Your task to perform on an android device: What's on my calendar tomorrow? Image 0: 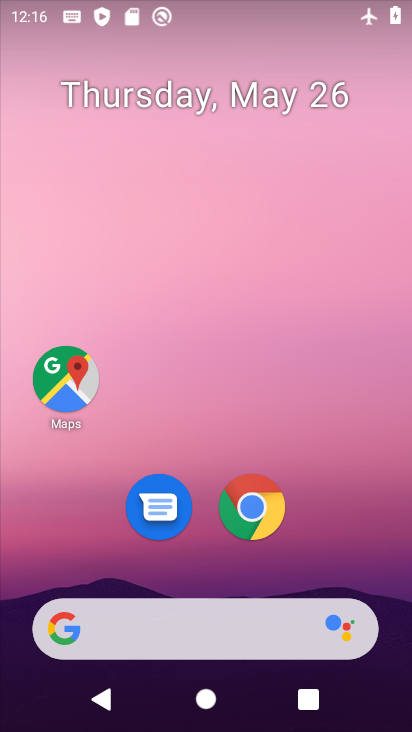
Step 0: drag from (215, 570) to (214, 178)
Your task to perform on an android device: What's on my calendar tomorrow? Image 1: 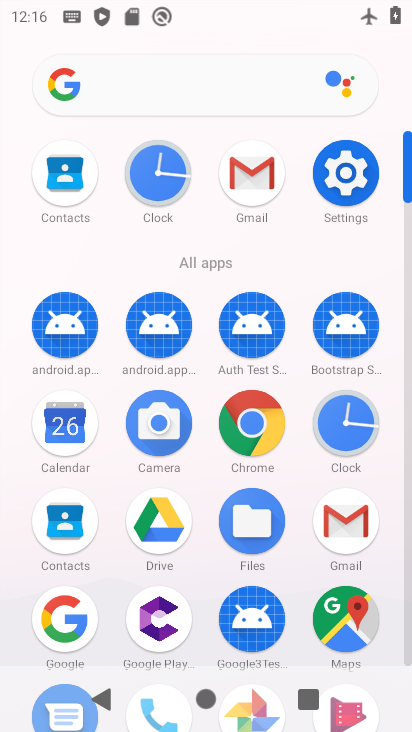
Step 1: click (69, 431)
Your task to perform on an android device: What's on my calendar tomorrow? Image 2: 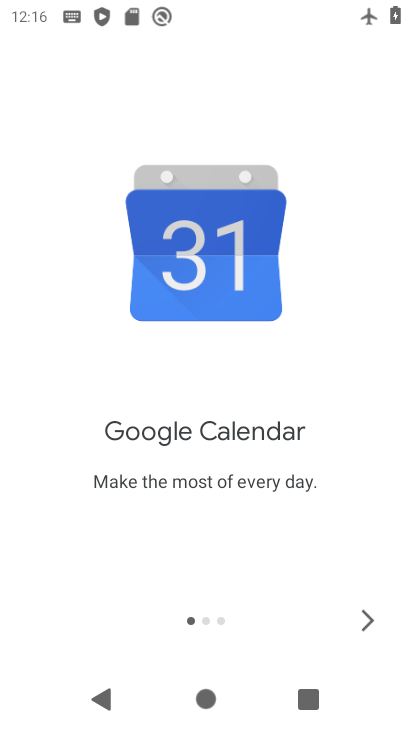
Step 2: click (374, 625)
Your task to perform on an android device: What's on my calendar tomorrow? Image 3: 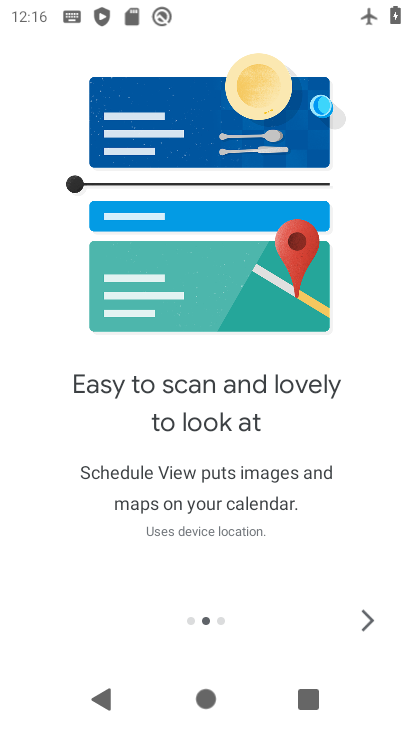
Step 3: click (375, 625)
Your task to perform on an android device: What's on my calendar tomorrow? Image 4: 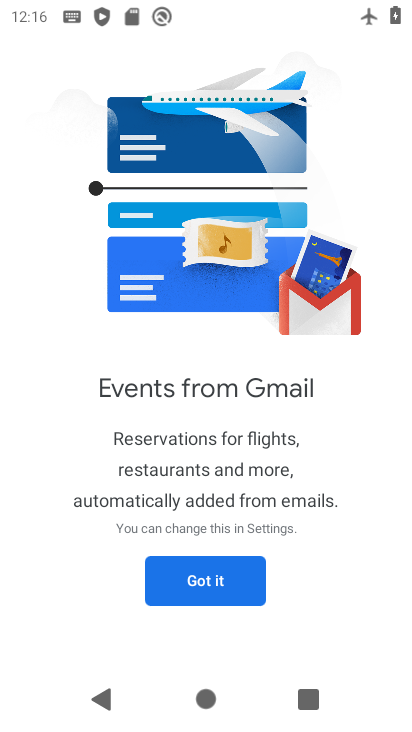
Step 4: click (221, 571)
Your task to perform on an android device: What's on my calendar tomorrow? Image 5: 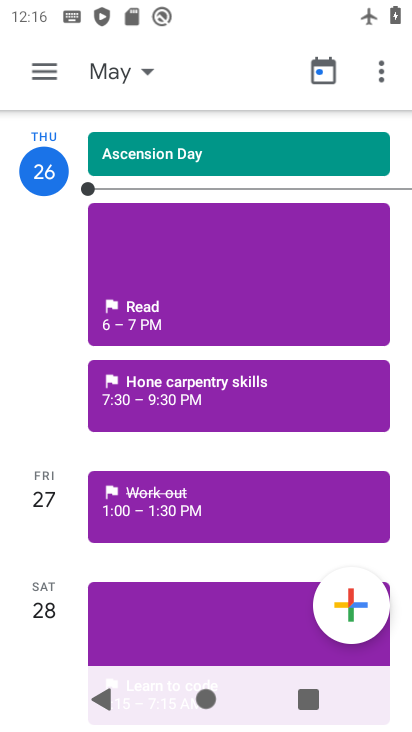
Step 5: click (128, 57)
Your task to perform on an android device: What's on my calendar tomorrow? Image 6: 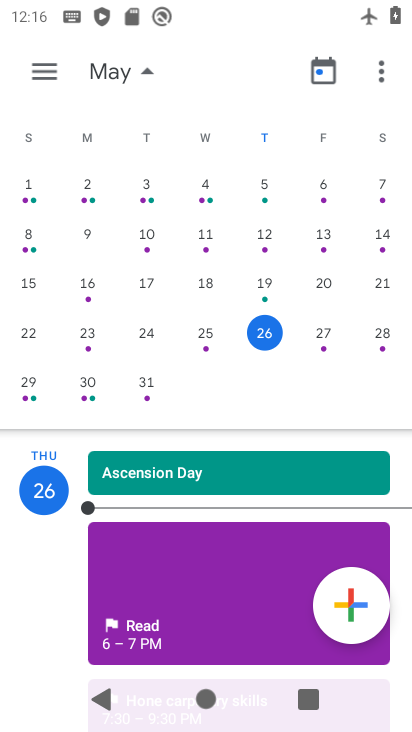
Step 6: click (330, 333)
Your task to perform on an android device: What's on my calendar tomorrow? Image 7: 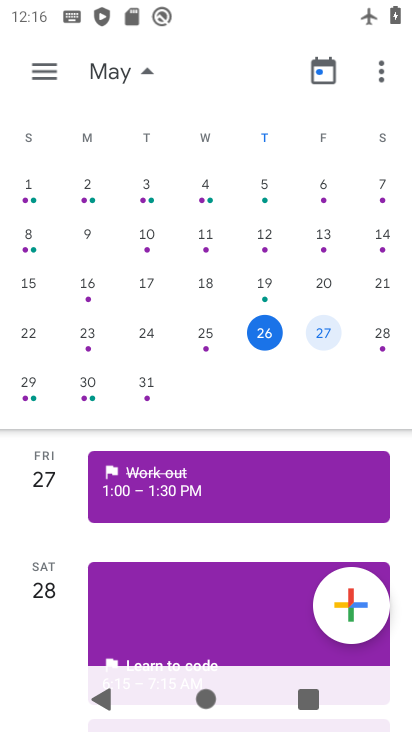
Step 7: task complete